Your task to perform on an android device: choose inbox layout in the gmail app Image 0: 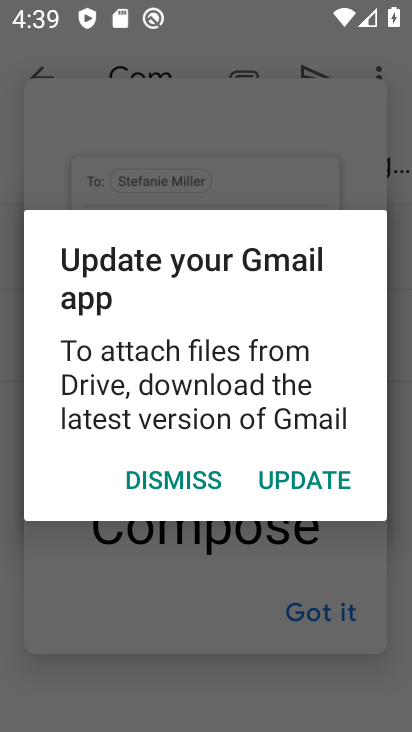
Step 0: press home button
Your task to perform on an android device: choose inbox layout in the gmail app Image 1: 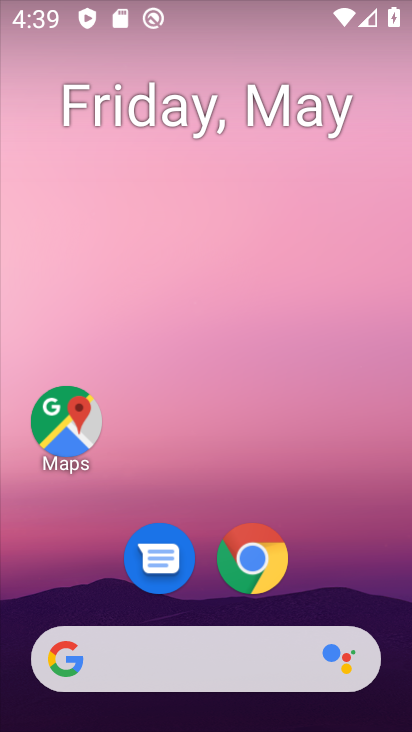
Step 1: drag from (343, 598) to (283, 187)
Your task to perform on an android device: choose inbox layout in the gmail app Image 2: 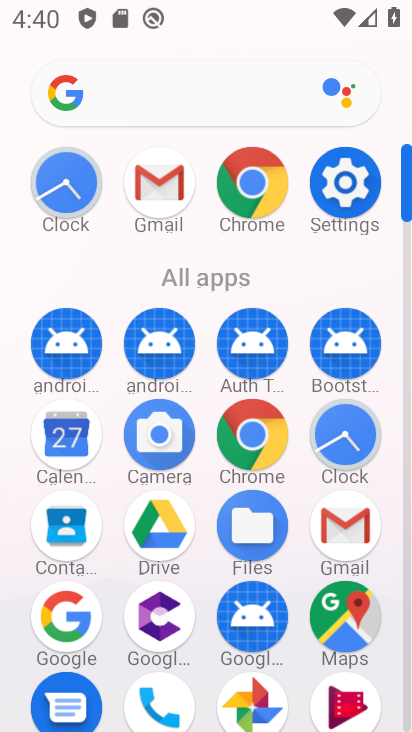
Step 2: click (164, 211)
Your task to perform on an android device: choose inbox layout in the gmail app Image 3: 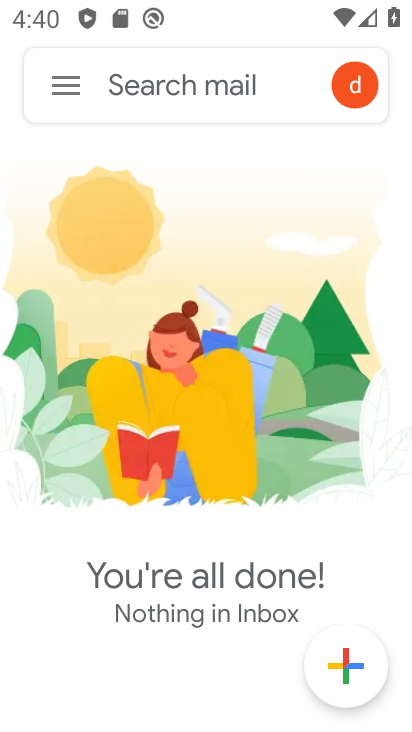
Step 3: click (70, 93)
Your task to perform on an android device: choose inbox layout in the gmail app Image 4: 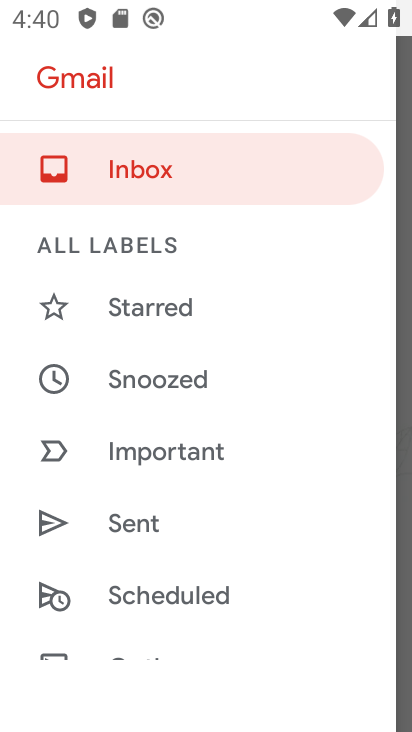
Step 4: drag from (190, 633) to (155, 199)
Your task to perform on an android device: choose inbox layout in the gmail app Image 5: 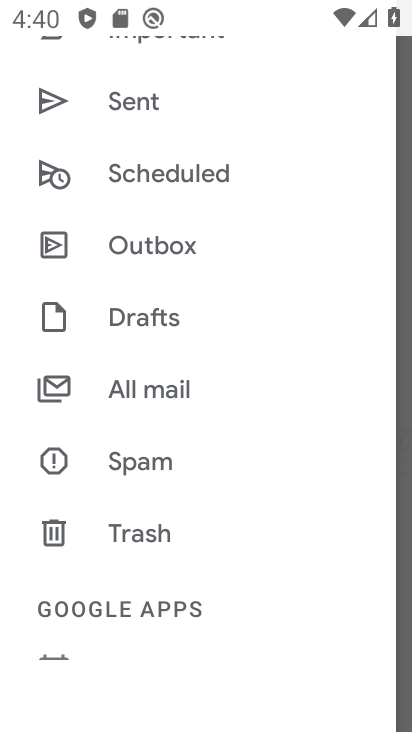
Step 5: drag from (188, 590) to (174, 235)
Your task to perform on an android device: choose inbox layout in the gmail app Image 6: 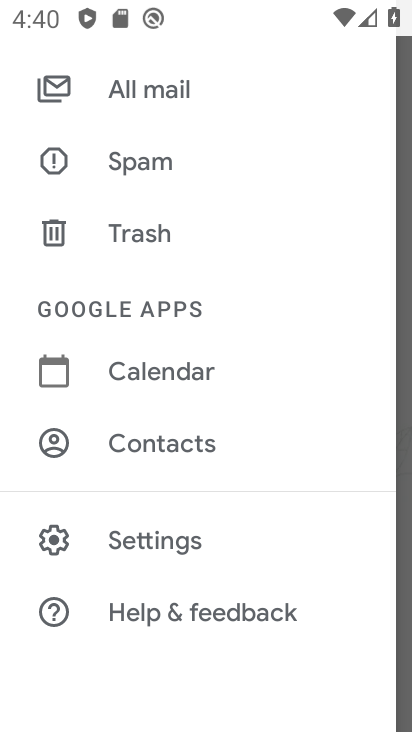
Step 6: click (175, 524)
Your task to perform on an android device: choose inbox layout in the gmail app Image 7: 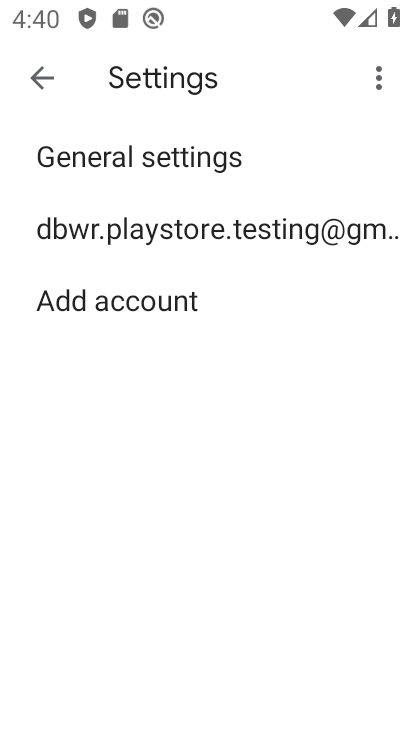
Step 7: click (246, 244)
Your task to perform on an android device: choose inbox layout in the gmail app Image 8: 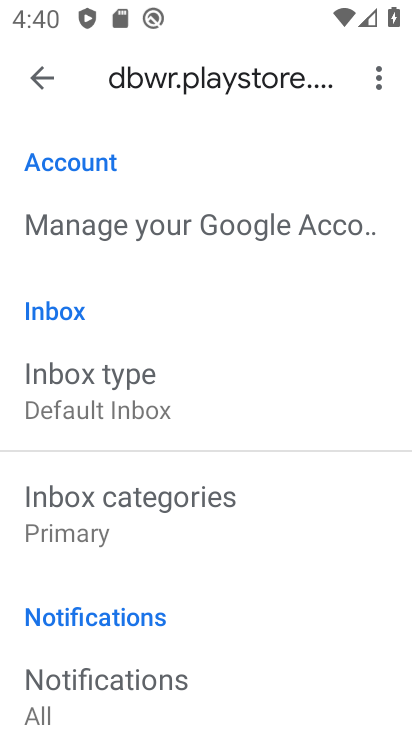
Step 8: click (264, 413)
Your task to perform on an android device: choose inbox layout in the gmail app Image 9: 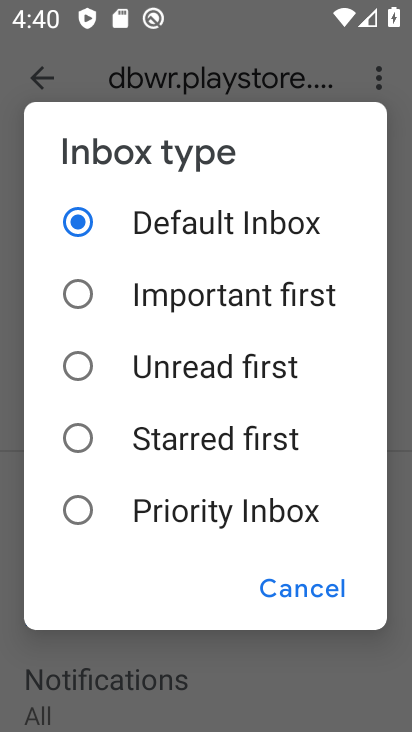
Step 9: click (229, 310)
Your task to perform on an android device: choose inbox layout in the gmail app Image 10: 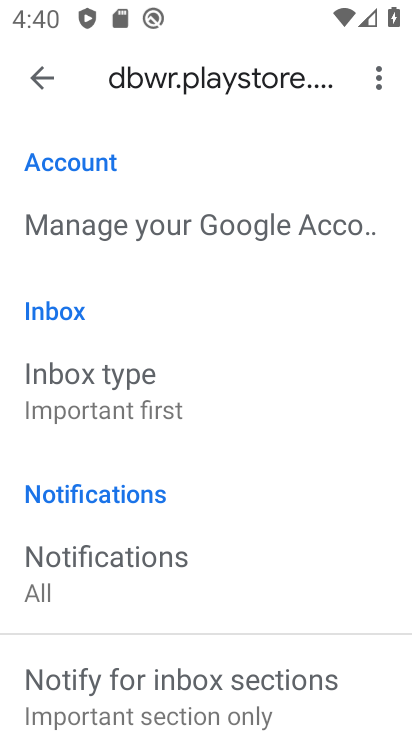
Step 10: task complete